Your task to perform on an android device: add a contact in the contacts app Image 0: 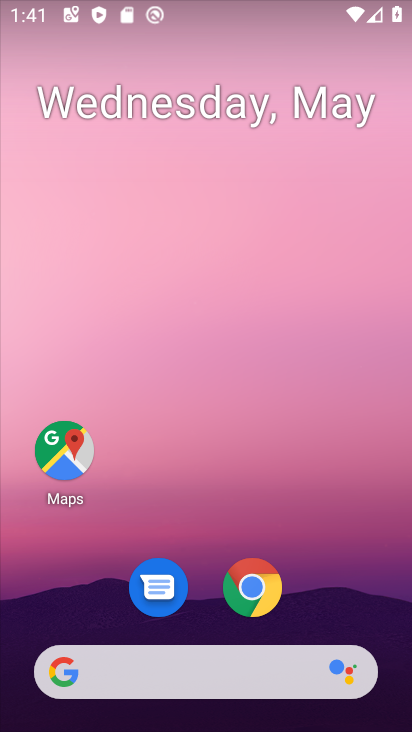
Step 0: drag from (322, 603) to (270, 10)
Your task to perform on an android device: add a contact in the contacts app Image 1: 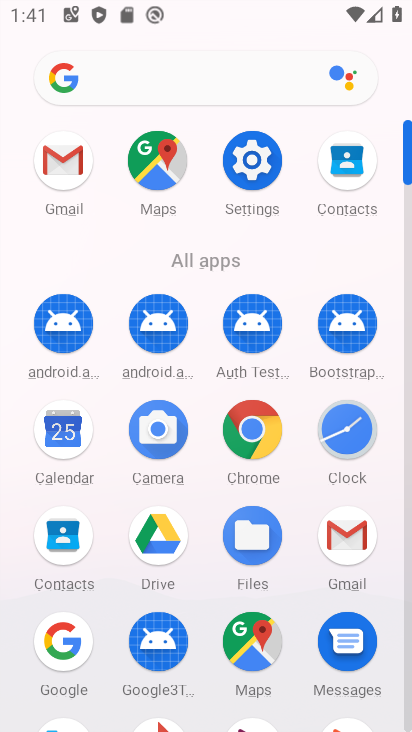
Step 1: click (62, 536)
Your task to perform on an android device: add a contact in the contacts app Image 2: 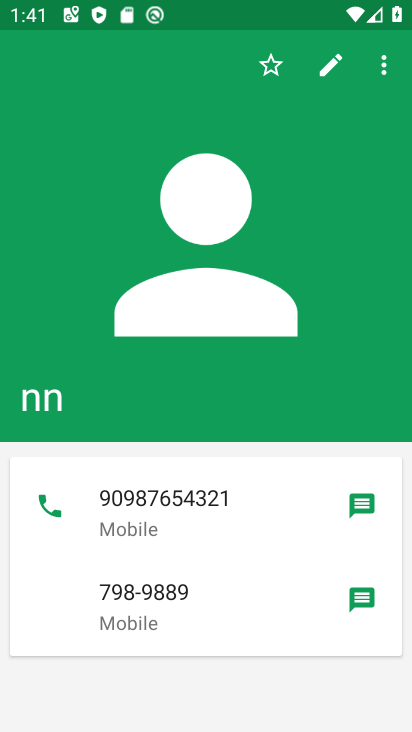
Step 2: press back button
Your task to perform on an android device: add a contact in the contacts app Image 3: 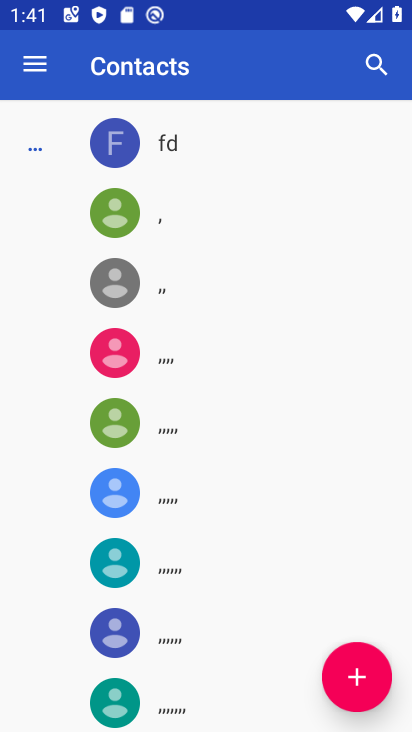
Step 3: click (362, 695)
Your task to perform on an android device: add a contact in the contacts app Image 4: 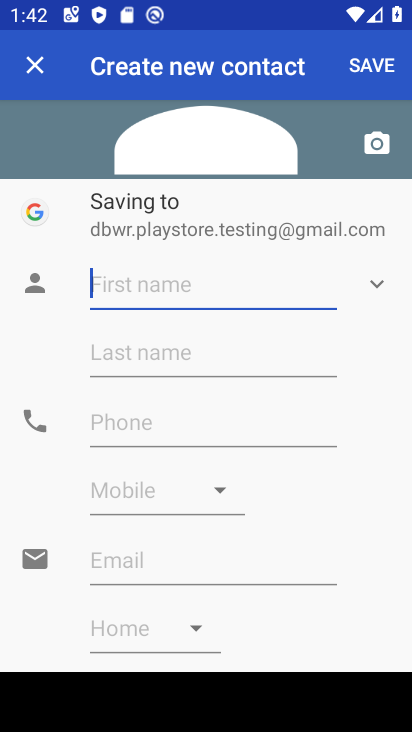
Step 4: type "lhhl"
Your task to perform on an android device: add a contact in the contacts app Image 5: 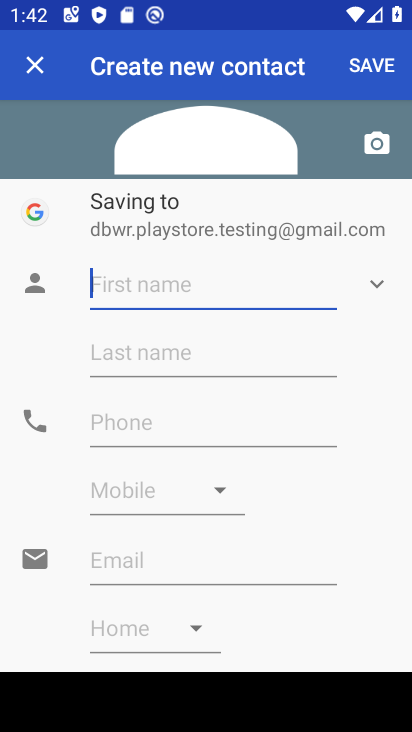
Step 5: click (165, 423)
Your task to perform on an android device: add a contact in the contacts app Image 6: 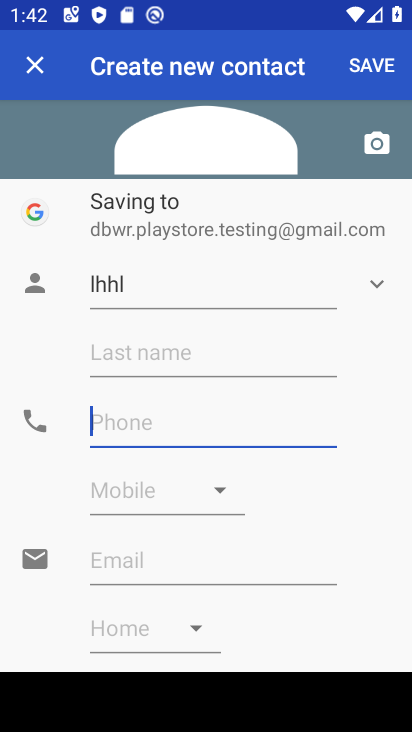
Step 6: type "9876987698"
Your task to perform on an android device: add a contact in the contacts app Image 7: 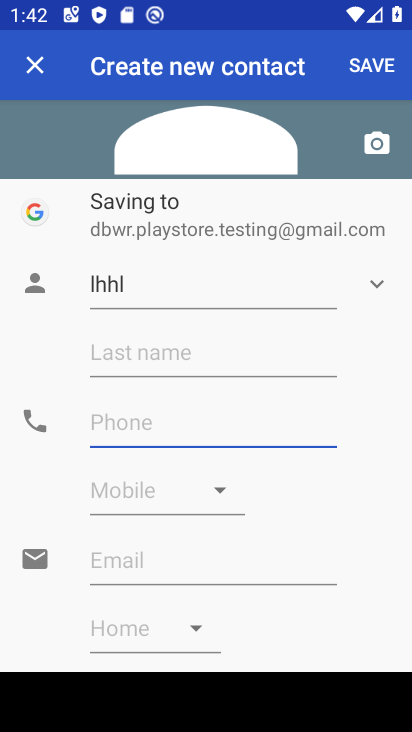
Step 7: click (371, 67)
Your task to perform on an android device: add a contact in the contacts app Image 8: 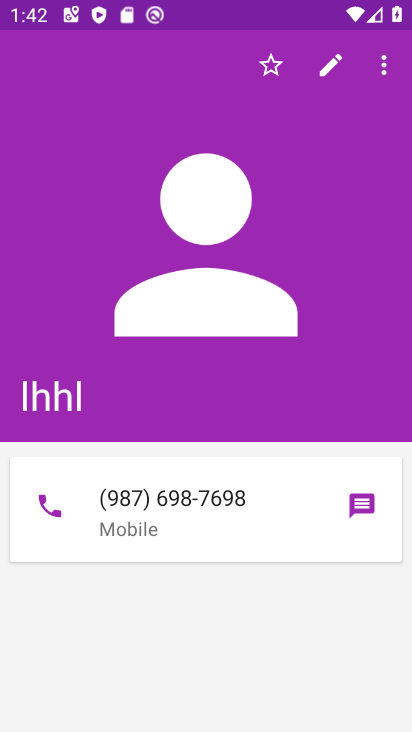
Step 8: task complete